Your task to perform on an android device: change the clock style Image 0: 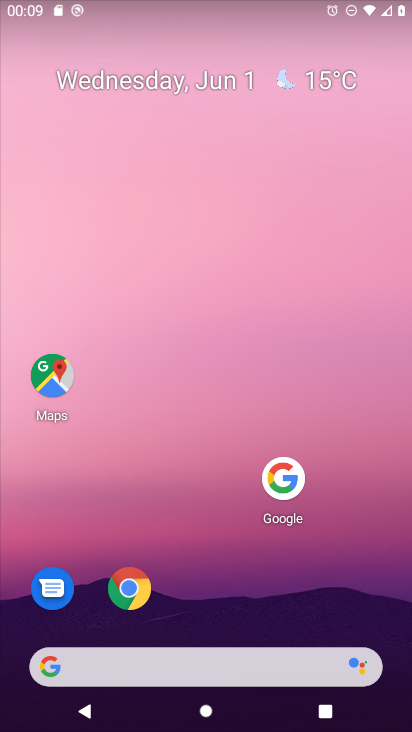
Step 0: press home button
Your task to perform on an android device: change the clock style Image 1: 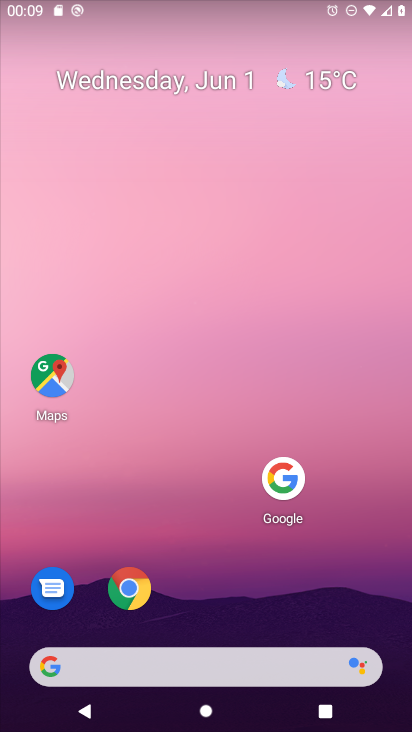
Step 1: drag from (172, 664) to (316, 104)
Your task to perform on an android device: change the clock style Image 2: 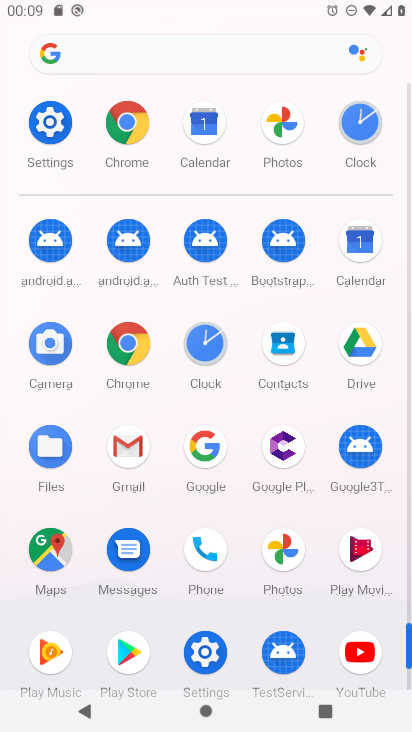
Step 2: click (368, 127)
Your task to perform on an android device: change the clock style Image 3: 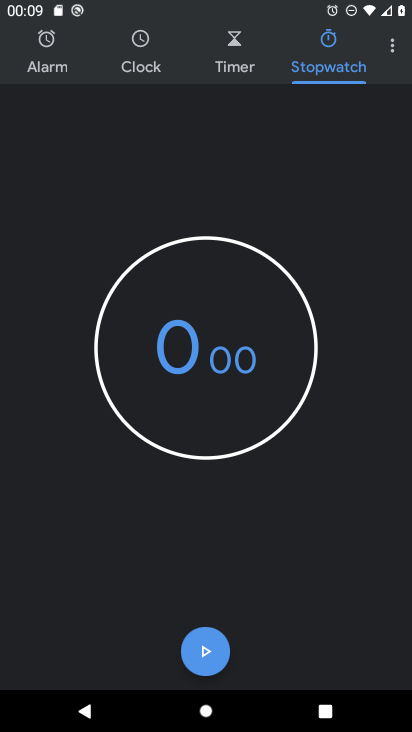
Step 3: click (386, 47)
Your task to perform on an android device: change the clock style Image 4: 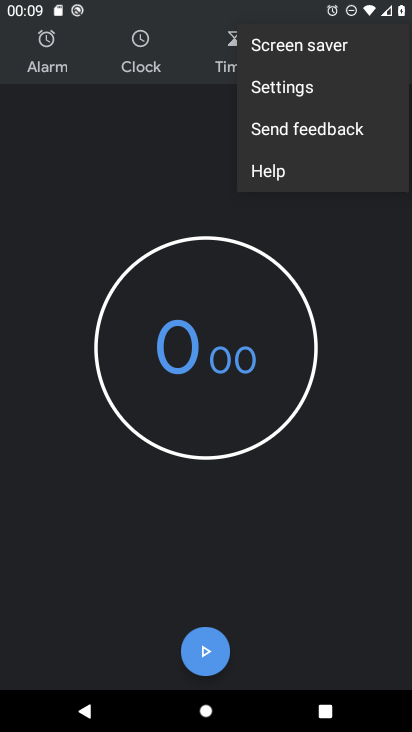
Step 4: click (287, 84)
Your task to perform on an android device: change the clock style Image 5: 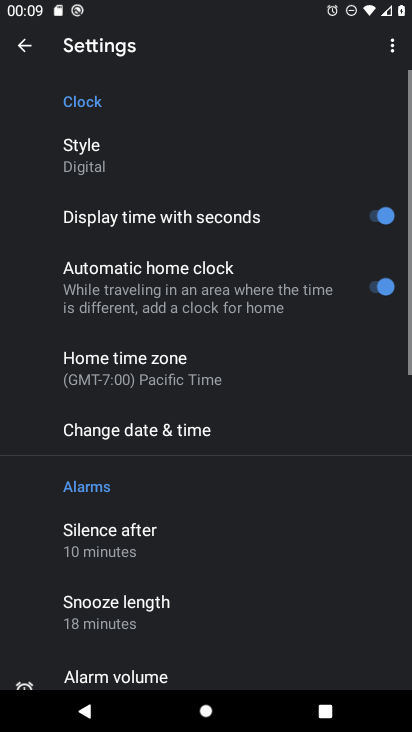
Step 5: click (85, 161)
Your task to perform on an android device: change the clock style Image 6: 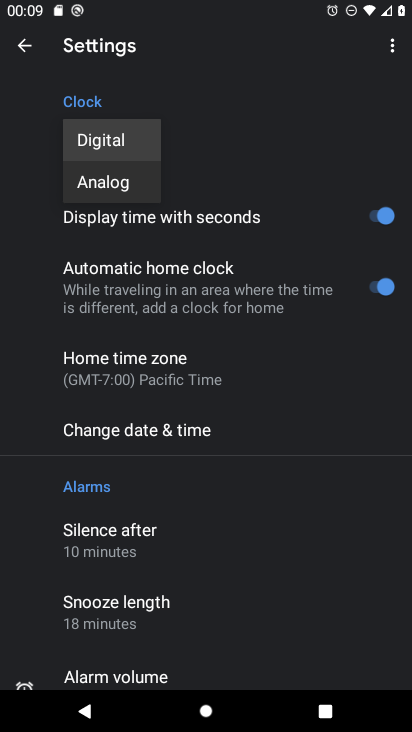
Step 6: click (131, 188)
Your task to perform on an android device: change the clock style Image 7: 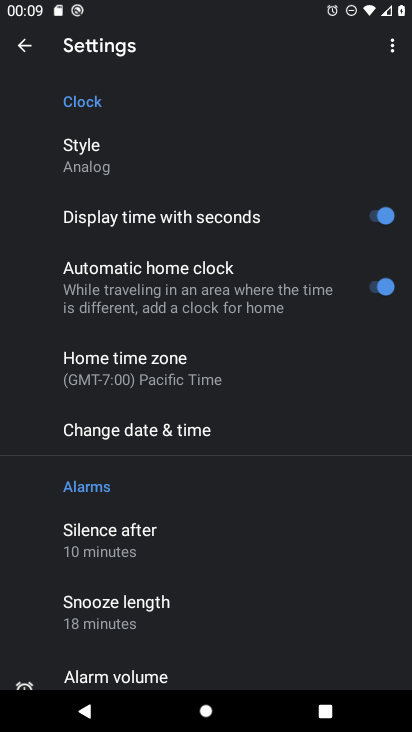
Step 7: task complete